Your task to perform on an android device: star an email in the gmail app Image 0: 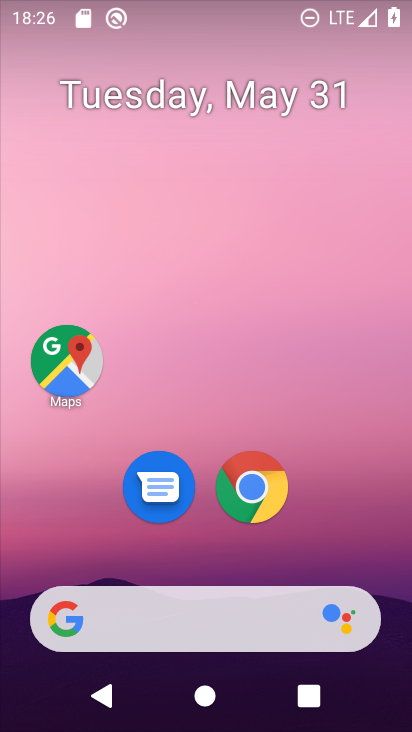
Step 0: drag from (331, 494) to (197, 93)
Your task to perform on an android device: star an email in the gmail app Image 1: 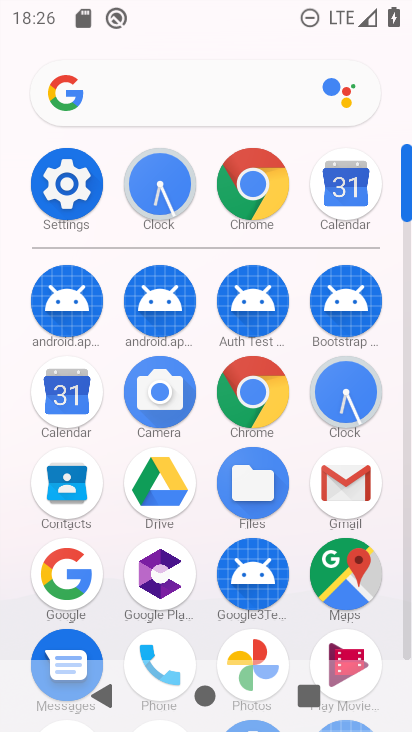
Step 1: click (341, 480)
Your task to perform on an android device: star an email in the gmail app Image 2: 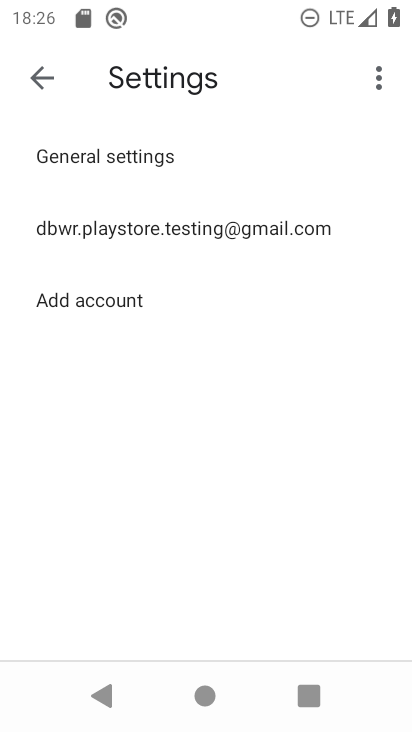
Step 2: click (44, 78)
Your task to perform on an android device: star an email in the gmail app Image 3: 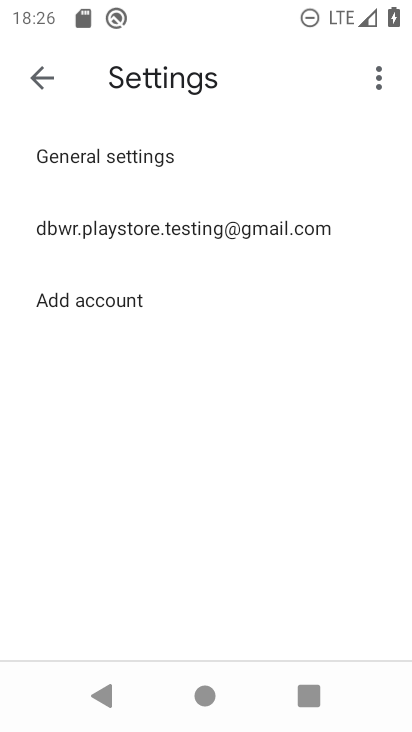
Step 3: click (42, 76)
Your task to perform on an android device: star an email in the gmail app Image 4: 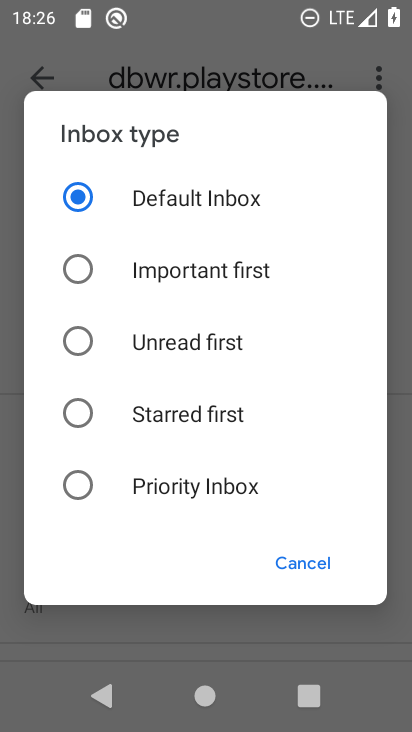
Step 4: click (286, 565)
Your task to perform on an android device: star an email in the gmail app Image 5: 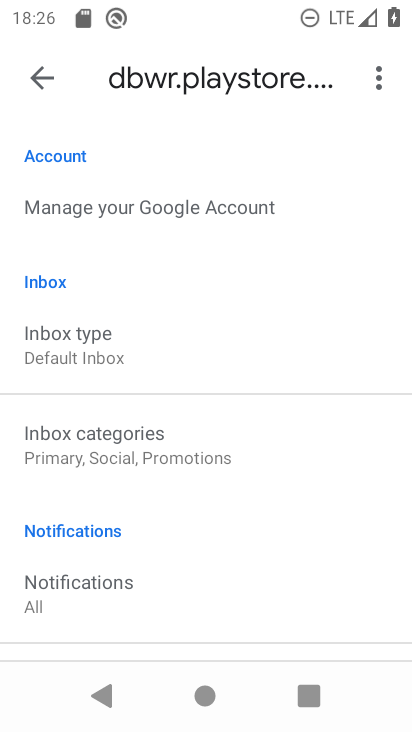
Step 5: drag from (251, 520) to (160, 157)
Your task to perform on an android device: star an email in the gmail app Image 6: 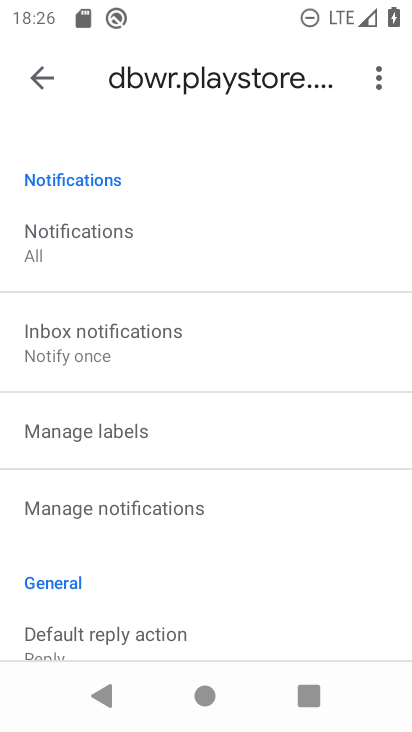
Step 6: drag from (197, 466) to (197, 254)
Your task to perform on an android device: star an email in the gmail app Image 7: 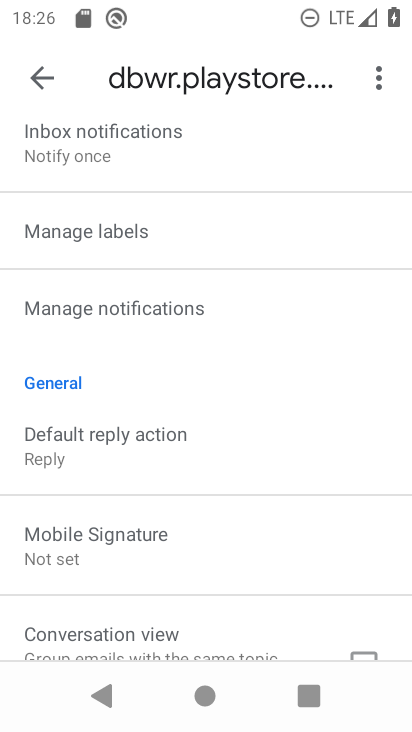
Step 7: drag from (245, 360) to (120, 714)
Your task to perform on an android device: star an email in the gmail app Image 8: 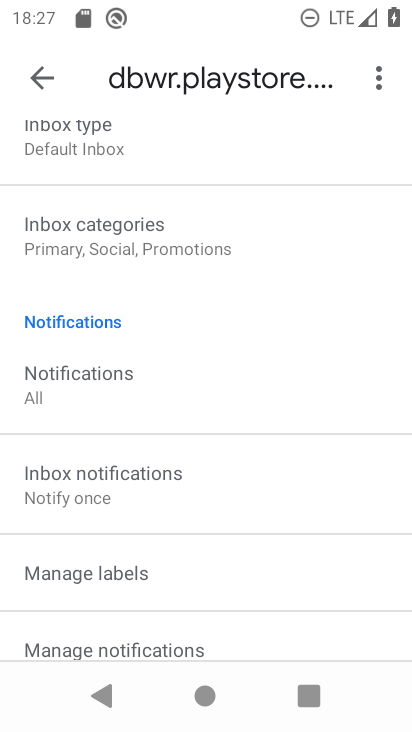
Step 8: drag from (245, 281) to (201, 677)
Your task to perform on an android device: star an email in the gmail app Image 9: 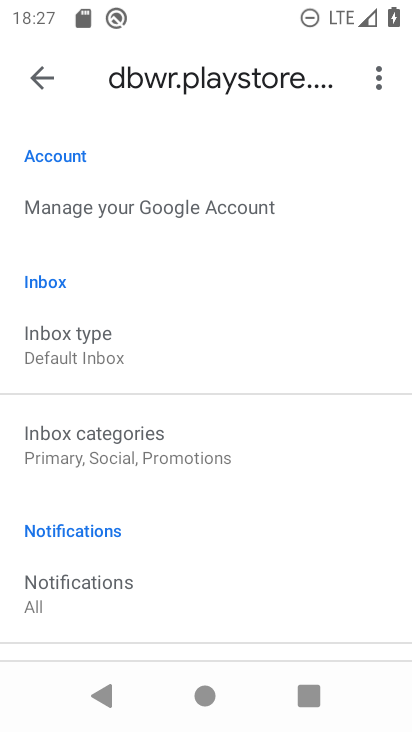
Step 9: click (41, 77)
Your task to perform on an android device: star an email in the gmail app Image 10: 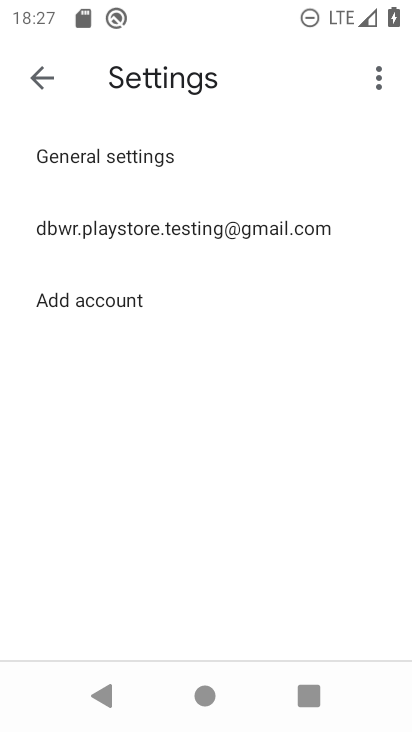
Step 10: click (45, 79)
Your task to perform on an android device: star an email in the gmail app Image 11: 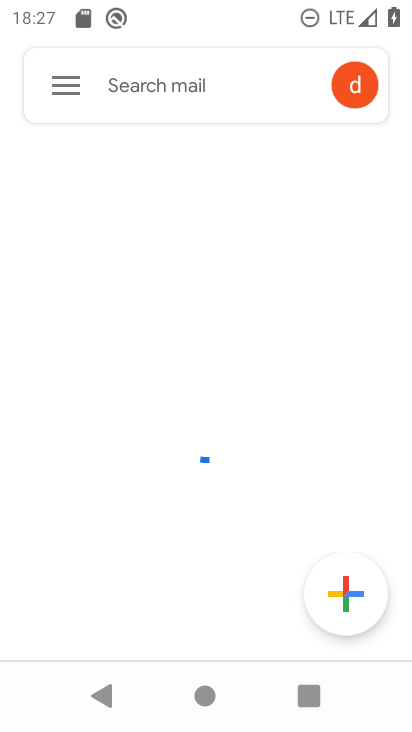
Step 11: click (54, 81)
Your task to perform on an android device: star an email in the gmail app Image 12: 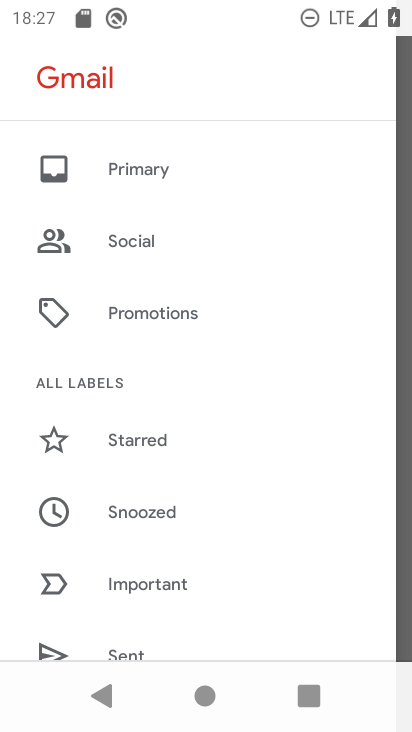
Step 12: drag from (230, 546) to (181, 278)
Your task to perform on an android device: star an email in the gmail app Image 13: 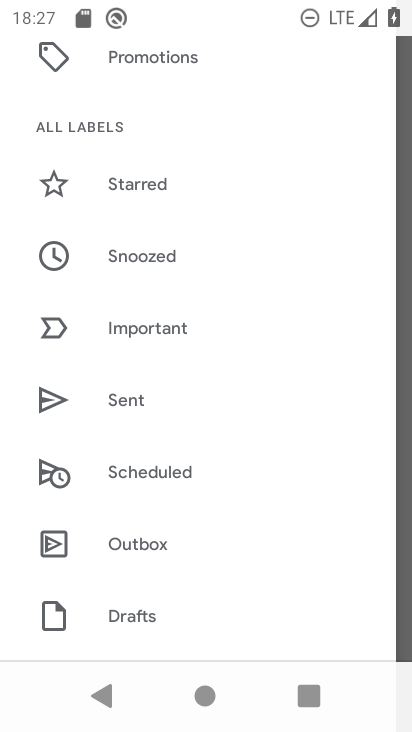
Step 13: drag from (246, 538) to (254, 264)
Your task to perform on an android device: star an email in the gmail app Image 14: 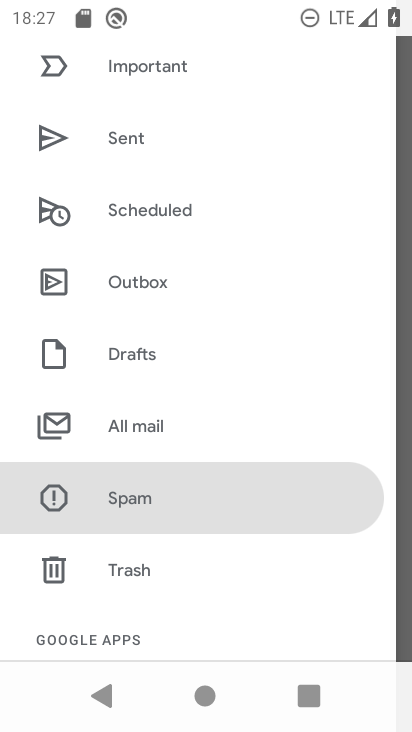
Step 14: click (135, 424)
Your task to perform on an android device: star an email in the gmail app Image 15: 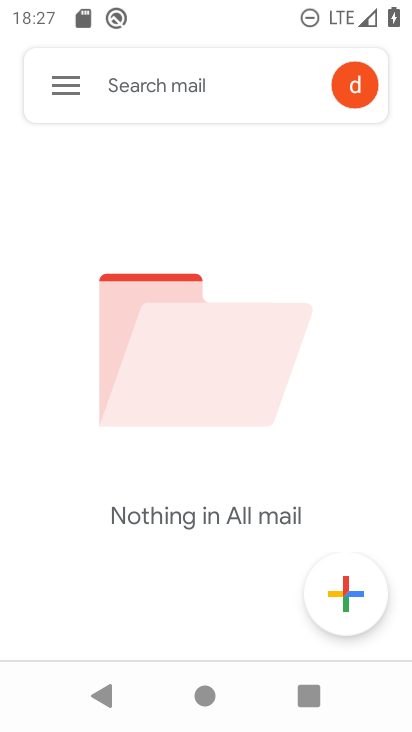
Step 15: task complete